Your task to perform on an android device: install app "Adobe Acrobat Reader" Image 0: 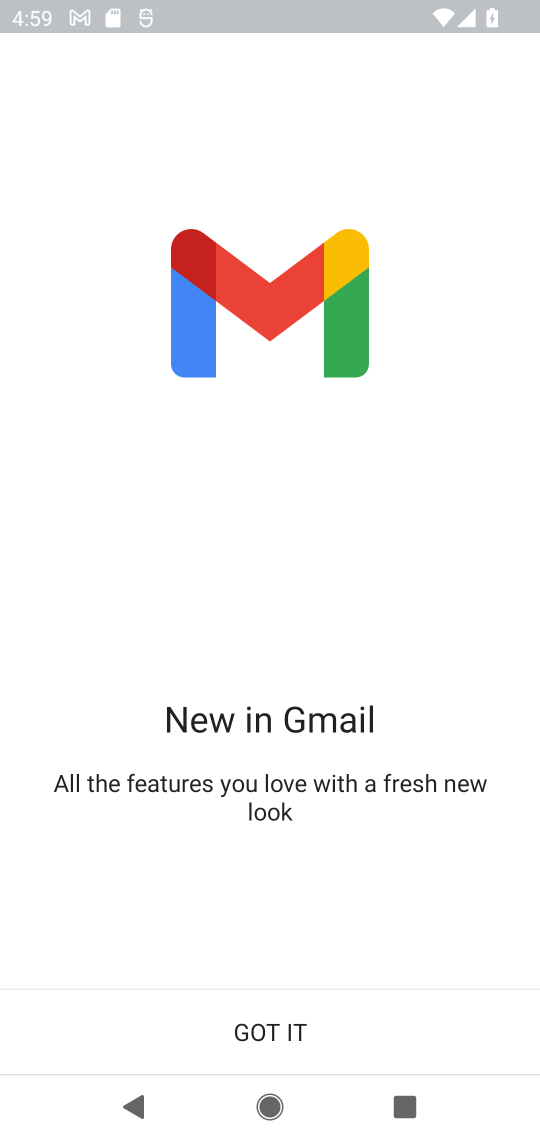
Step 0: press home button
Your task to perform on an android device: install app "Adobe Acrobat Reader" Image 1: 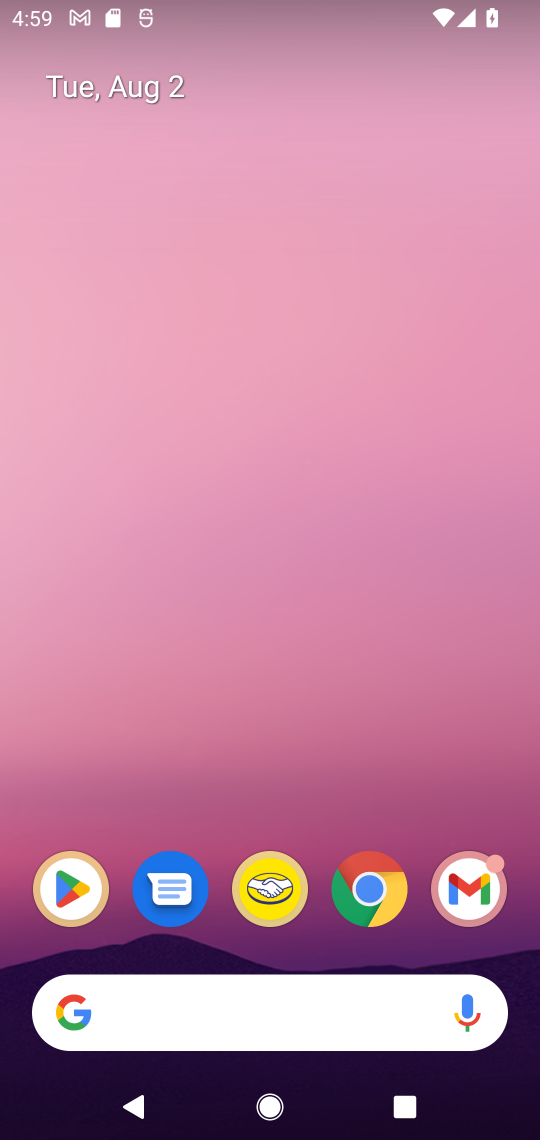
Step 1: drag from (394, 798) to (334, 55)
Your task to perform on an android device: install app "Adobe Acrobat Reader" Image 2: 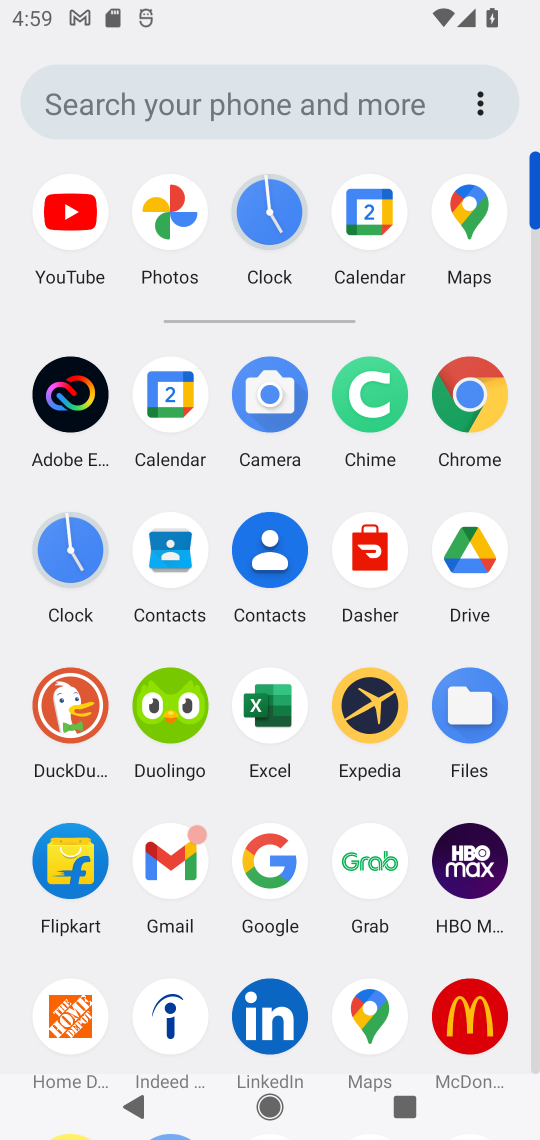
Step 2: drag from (506, 963) to (511, 371)
Your task to perform on an android device: install app "Adobe Acrobat Reader" Image 3: 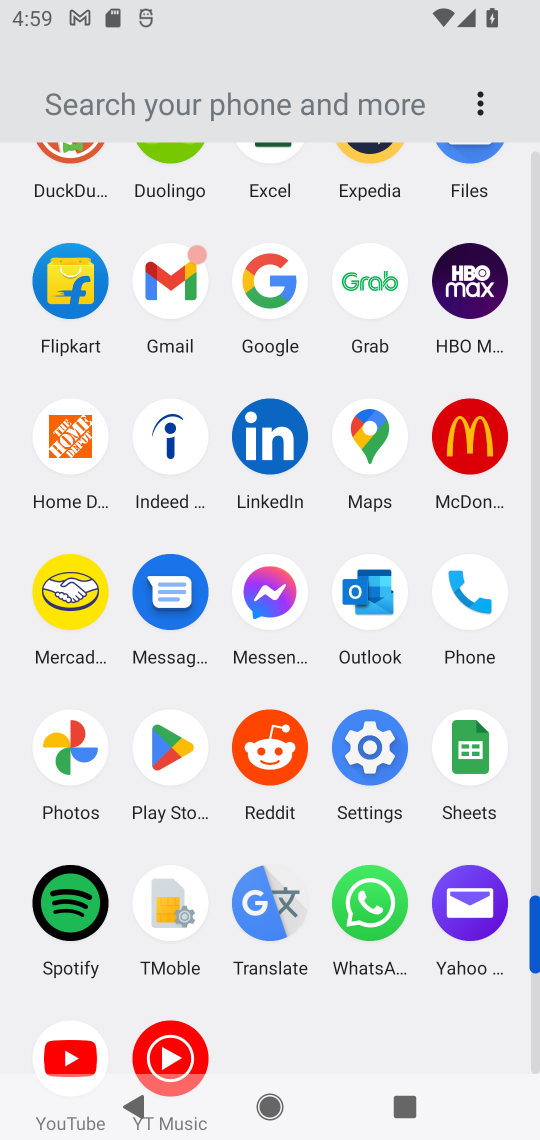
Step 3: click (175, 756)
Your task to perform on an android device: install app "Adobe Acrobat Reader" Image 4: 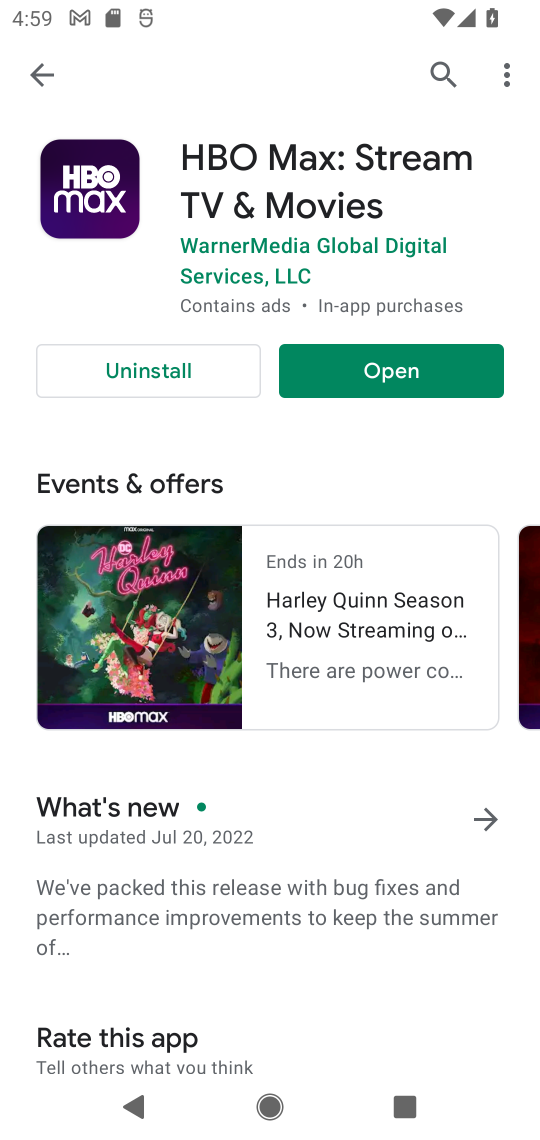
Step 4: click (437, 77)
Your task to perform on an android device: install app "Adobe Acrobat Reader" Image 5: 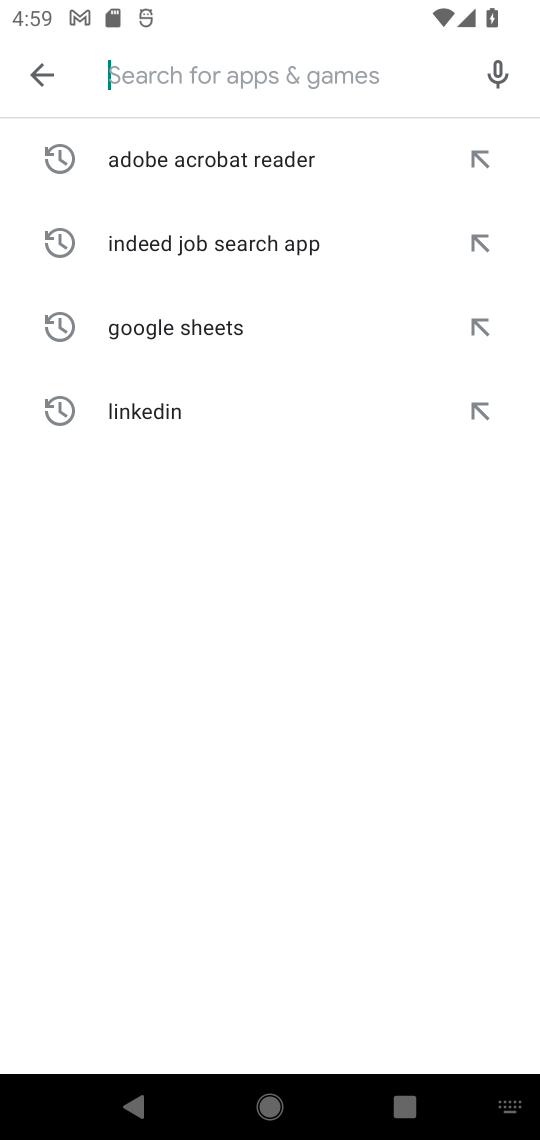
Step 5: click (363, 74)
Your task to perform on an android device: install app "Adobe Acrobat Reader" Image 6: 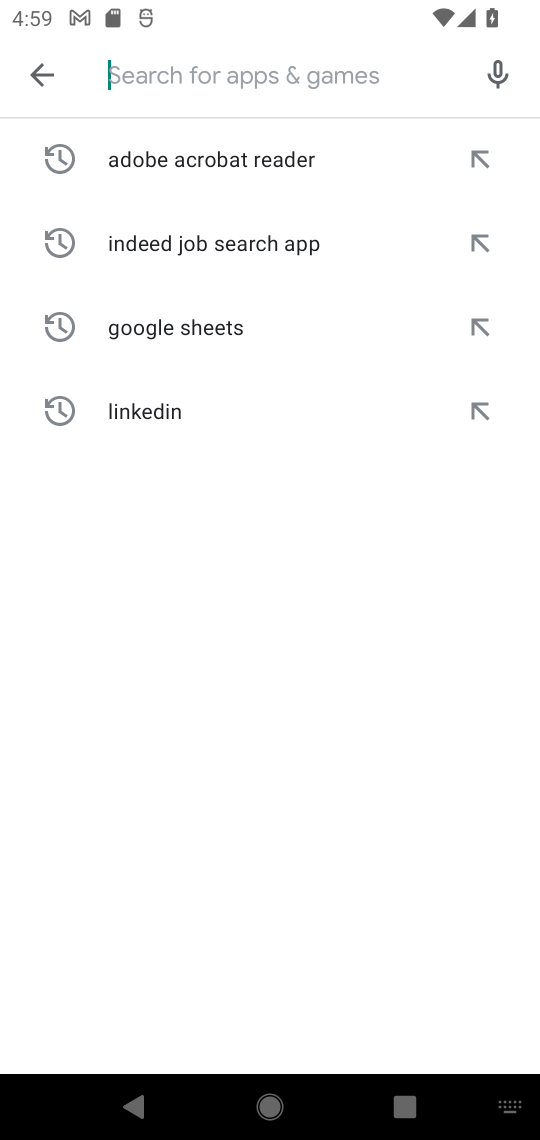
Step 6: click (268, 176)
Your task to perform on an android device: install app "Adobe Acrobat Reader" Image 7: 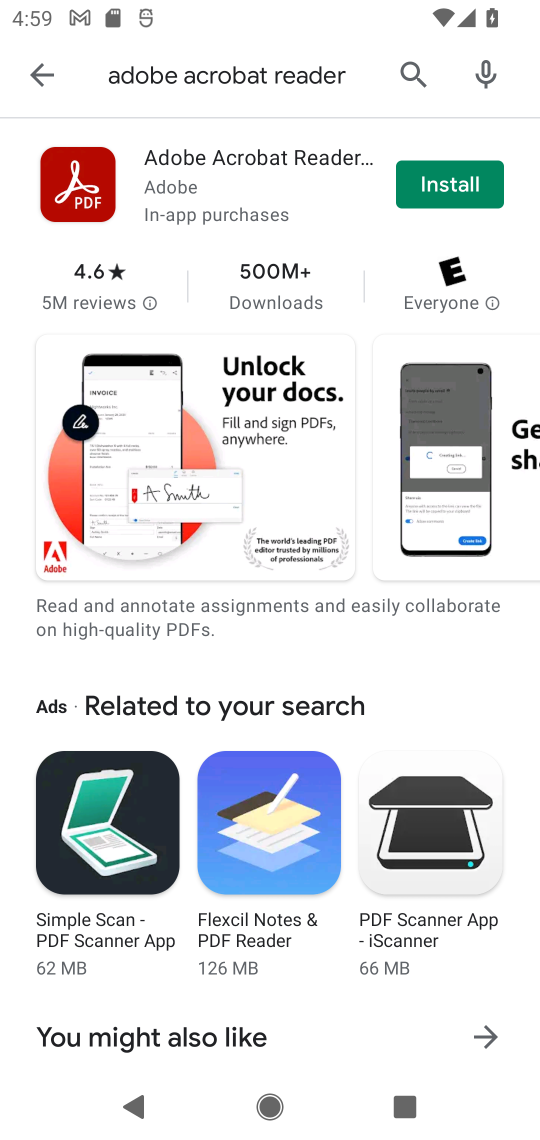
Step 7: click (449, 189)
Your task to perform on an android device: install app "Adobe Acrobat Reader" Image 8: 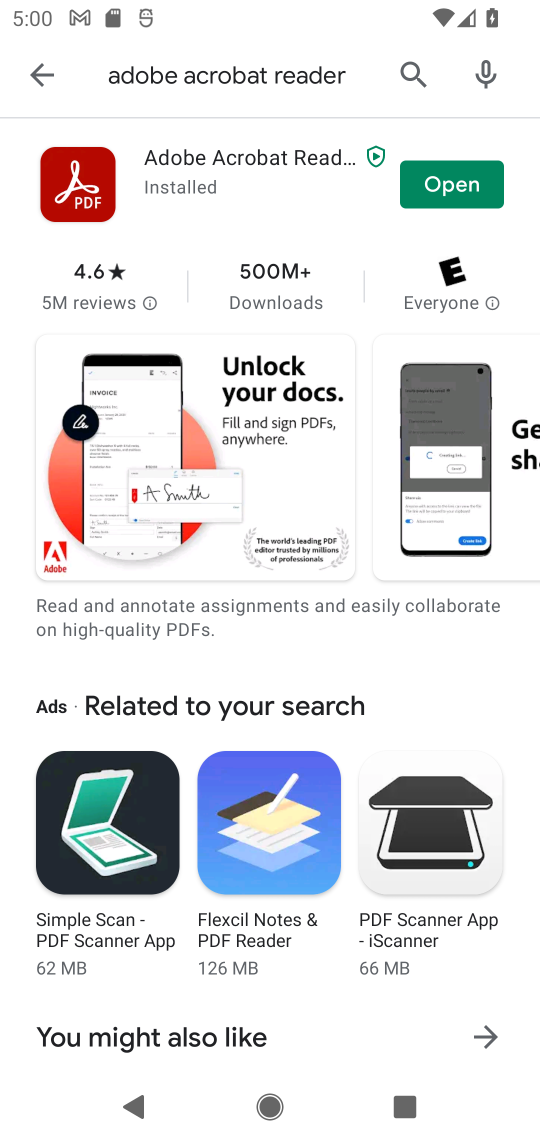
Step 8: task complete